Your task to perform on an android device: clear all cookies in the chrome app Image 0: 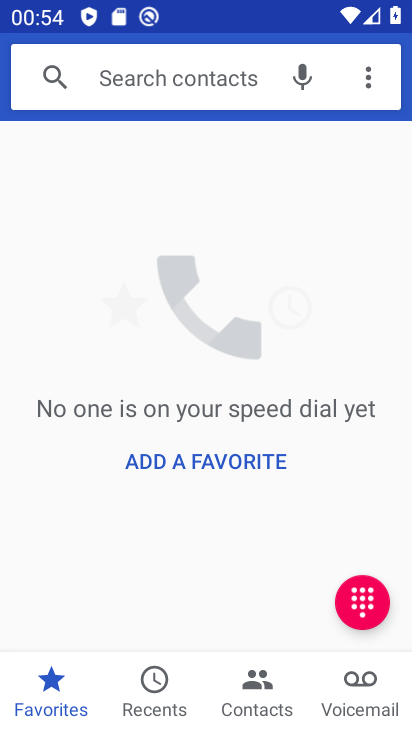
Step 0: press home button
Your task to perform on an android device: clear all cookies in the chrome app Image 1: 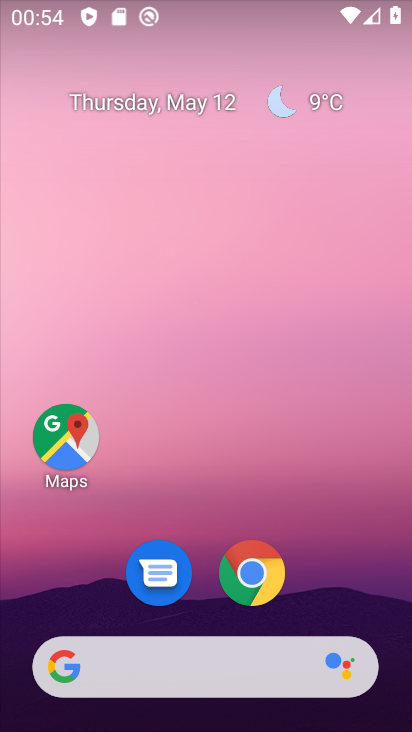
Step 1: click (247, 575)
Your task to perform on an android device: clear all cookies in the chrome app Image 2: 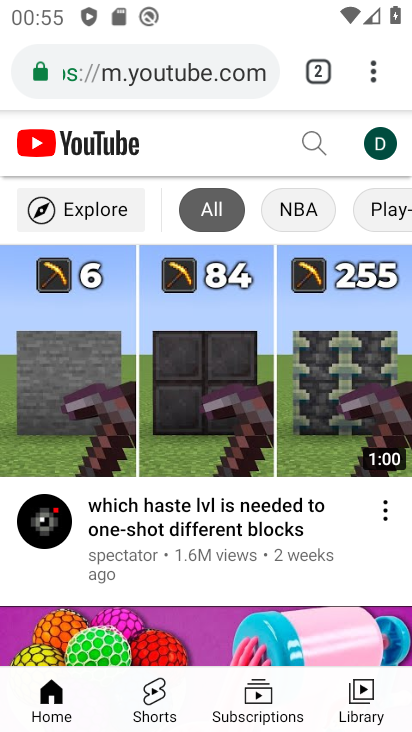
Step 2: click (372, 82)
Your task to perform on an android device: clear all cookies in the chrome app Image 3: 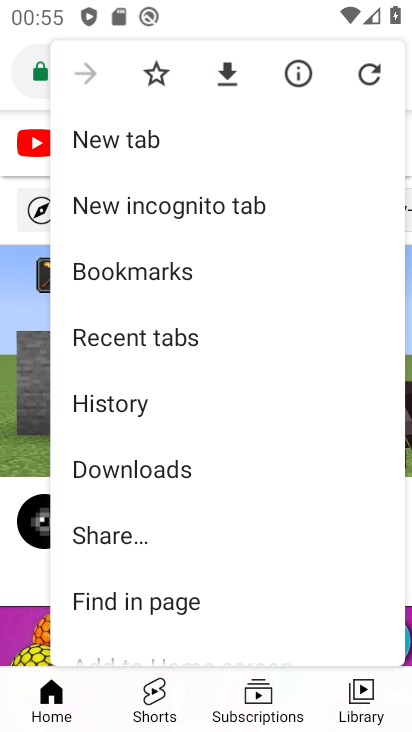
Step 3: click (140, 413)
Your task to perform on an android device: clear all cookies in the chrome app Image 4: 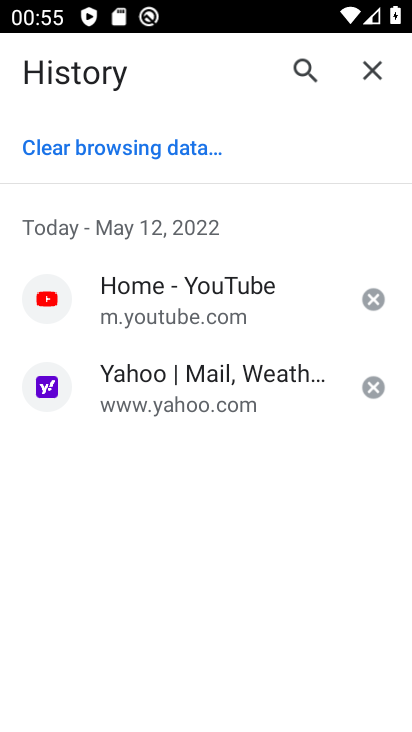
Step 4: click (135, 140)
Your task to perform on an android device: clear all cookies in the chrome app Image 5: 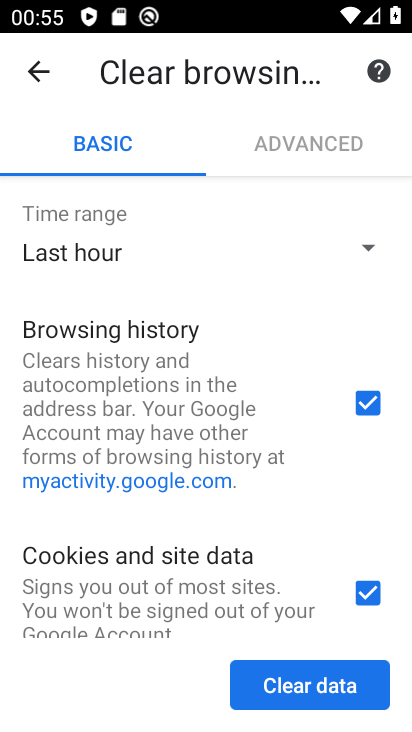
Step 5: drag from (308, 454) to (308, 265)
Your task to perform on an android device: clear all cookies in the chrome app Image 6: 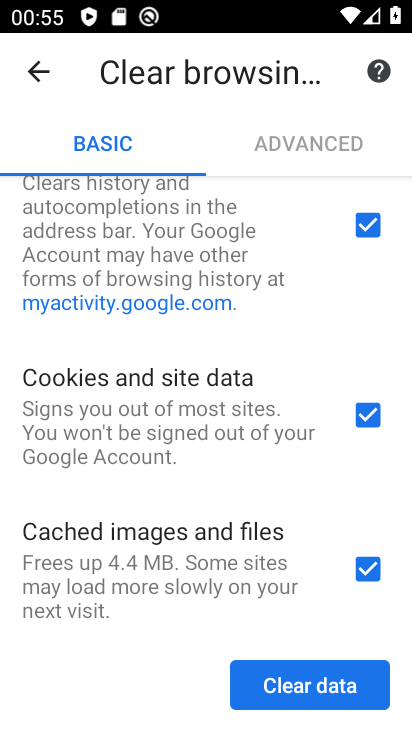
Step 6: click (354, 228)
Your task to perform on an android device: clear all cookies in the chrome app Image 7: 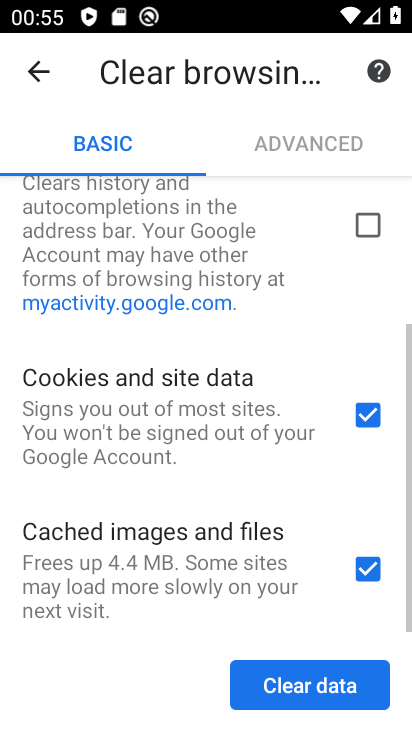
Step 7: click (361, 573)
Your task to perform on an android device: clear all cookies in the chrome app Image 8: 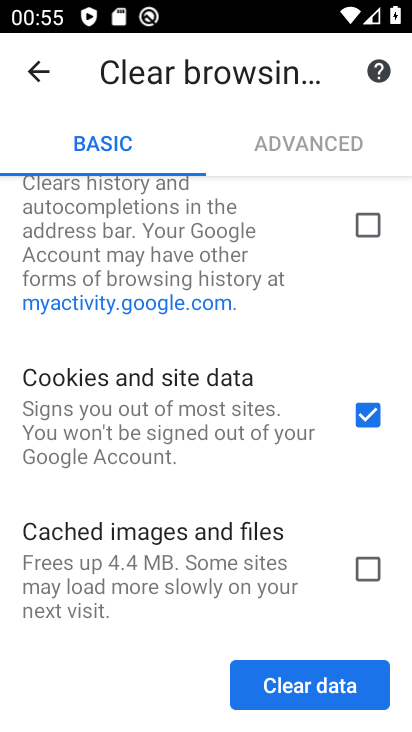
Step 8: click (321, 692)
Your task to perform on an android device: clear all cookies in the chrome app Image 9: 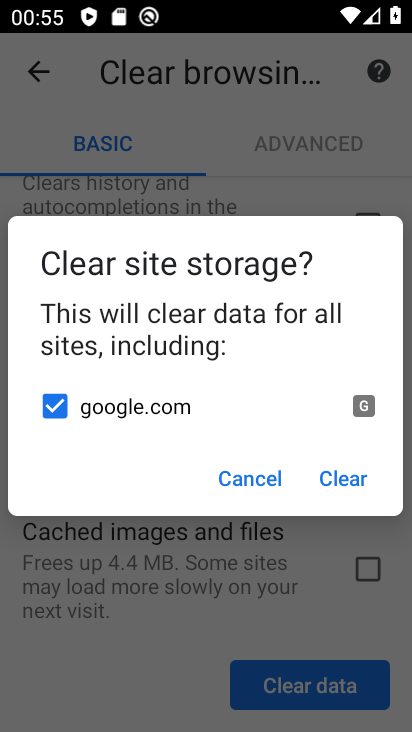
Step 9: click (335, 476)
Your task to perform on an android device: clear all cookies in the chrome app Image 10: 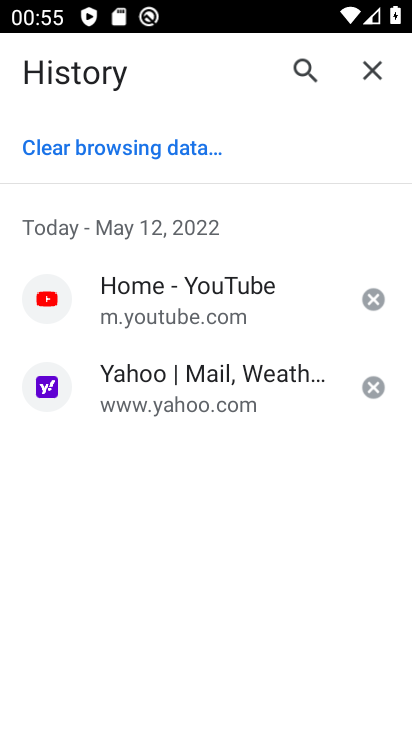
Step 10: task complete